Your task to perform on an android device: Clear the cart on ebay. Add "usb-a to usb-b" to the cart on ebay, then select checkout. Image 0: 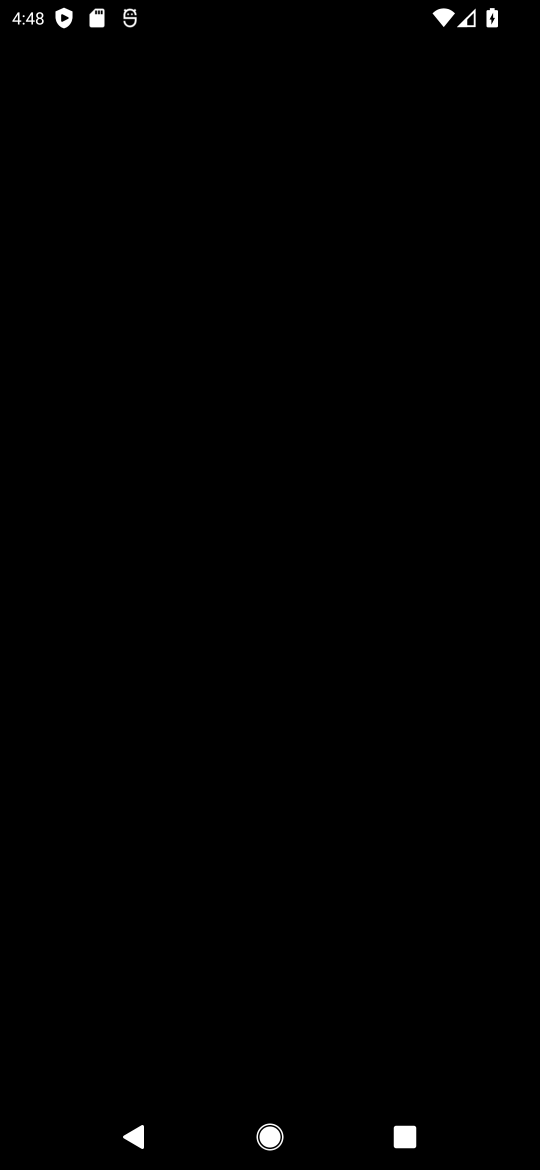
Step 0: click (439, 109)
Your task to perform on an android device: Clear the cart on ebay. Add "usb-a to usb-b" to the cart on ebay, then select checkout. Image 1: 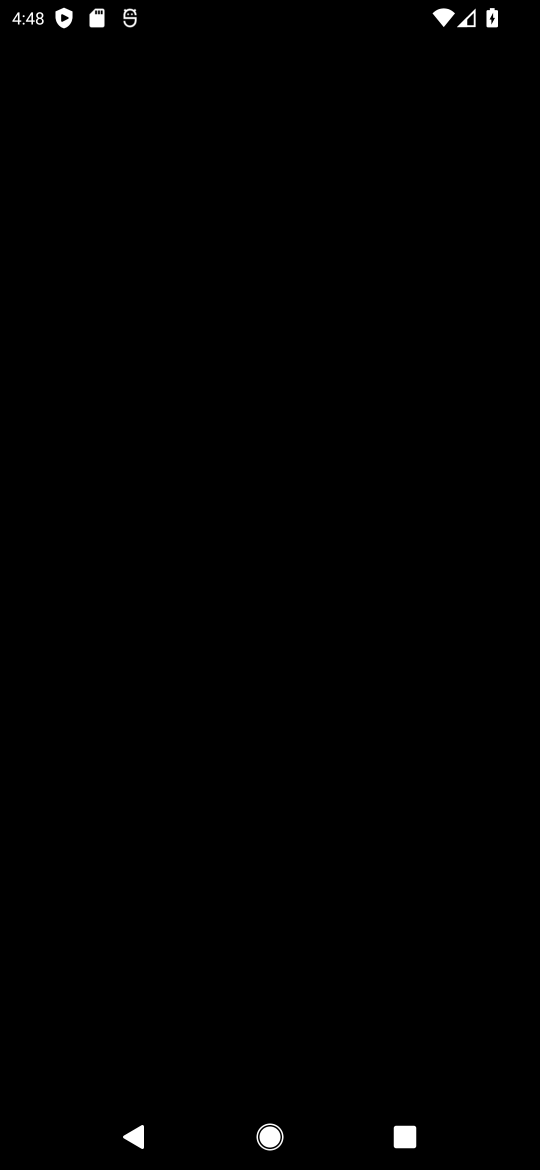
Step 1: press home button
Your task to perform on an android device: Clear the cart on ebay. Add "usb-a to usb-b" to the cart on ebay, then select checkout. Image 2: 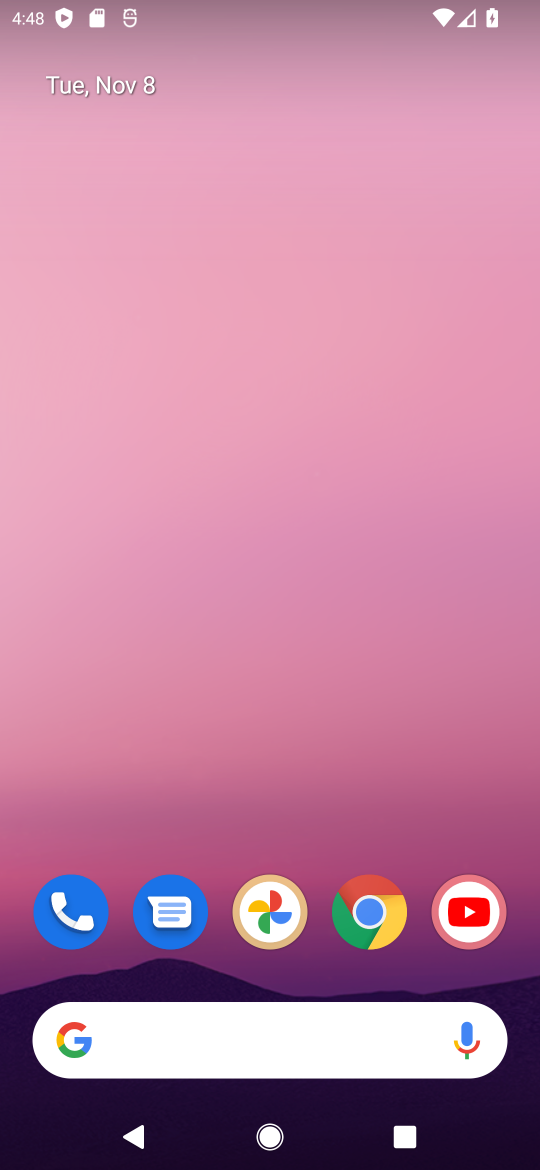
Step 2: click (372, 906)
Your task to perform on an android device: Clear the cart on ebay. Add "usb-a to usb-b" to the cart on ebay, then select checkout. Image 3: 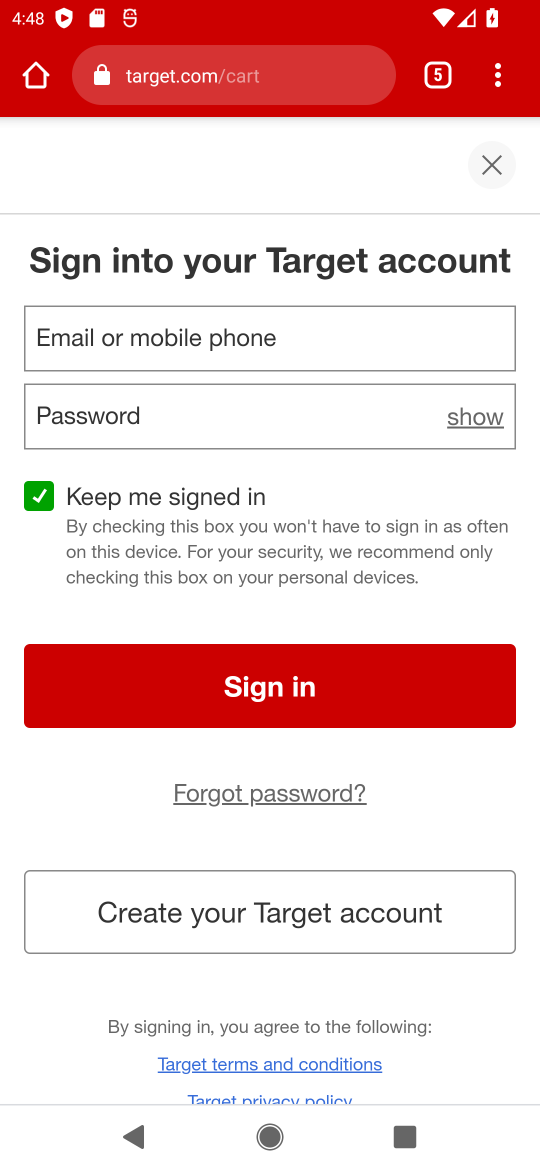
Step 3: click (441, 77)
Your task to perform on an android device: Clear the cart on ebay. Add "usb-a to usb-b" to the cart on ebay, then select checkout. Image 4: 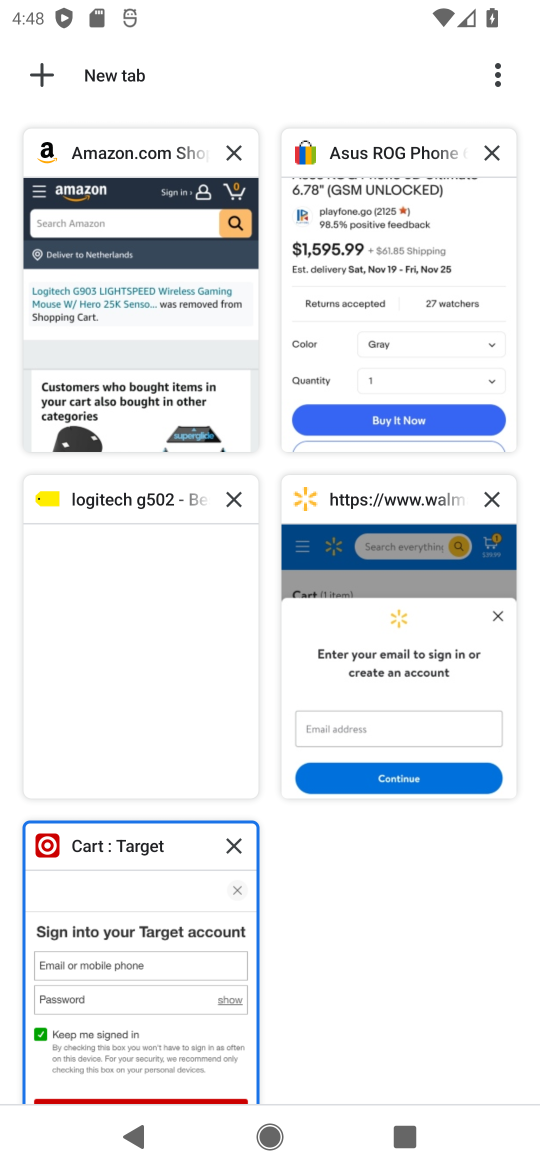
Step 4: click (193, 605)
Your task to perform on an android device: Clear the cart on ebay. Add "usb-a to usb-b" to the cart on ebay, then select checkout. Image 5: 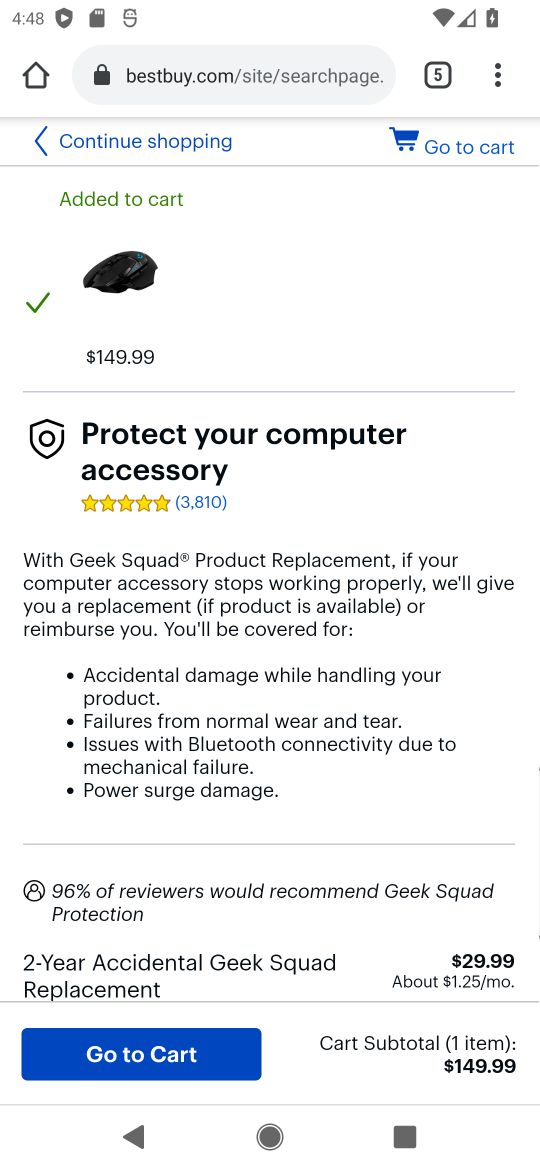
Step 5: click (204, 143)
Your task to perform on an android device: Clear the cart on ebay. Add "usb-a to usb-b" to the cart on ebay, then select checkout. Image 6: 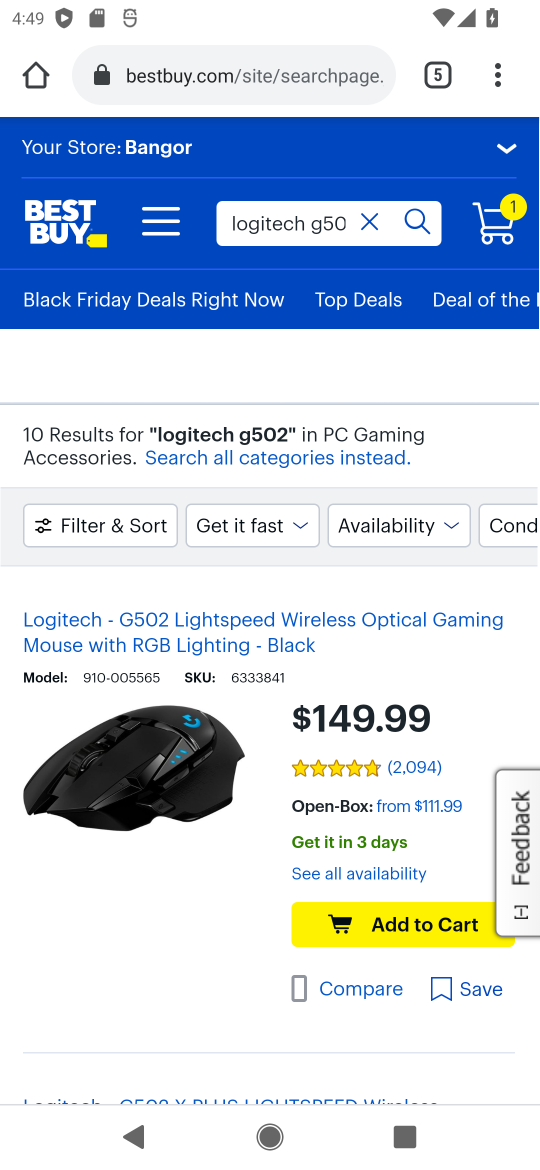
Step 6: click (380, 215)
Your task to perform on an android device: Clear the cart on ebay. Add "usb-a to usb-b" to the cart on ebay, then select checkout. Image 7: 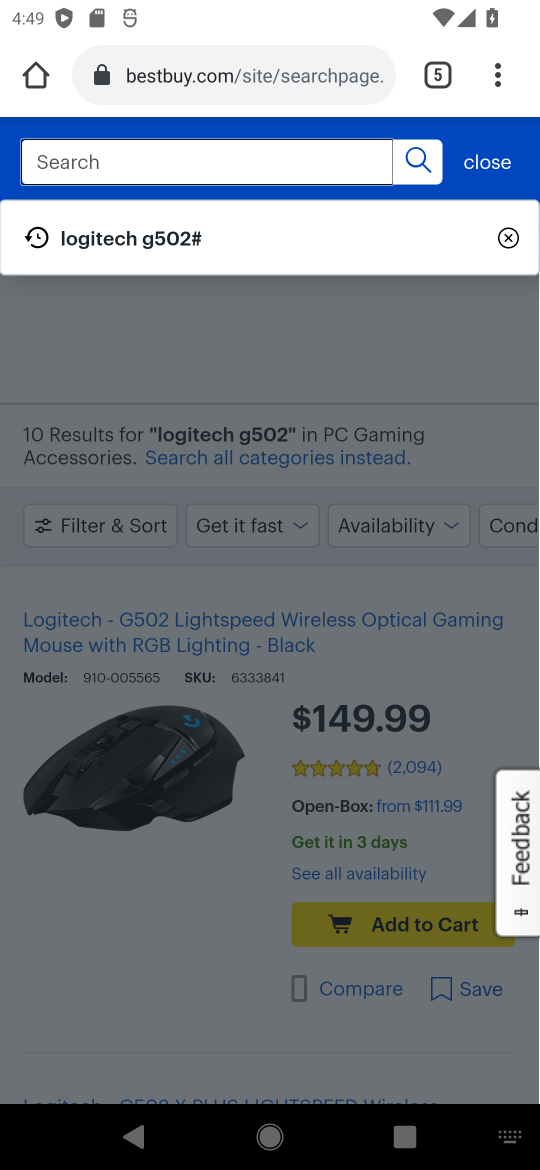
Step 7: press enter
Your task to perform on an android device: Clear the cart on ebay. Add "usb-a to usb-b" to the cart on ebay, then select checkout. Image 8: 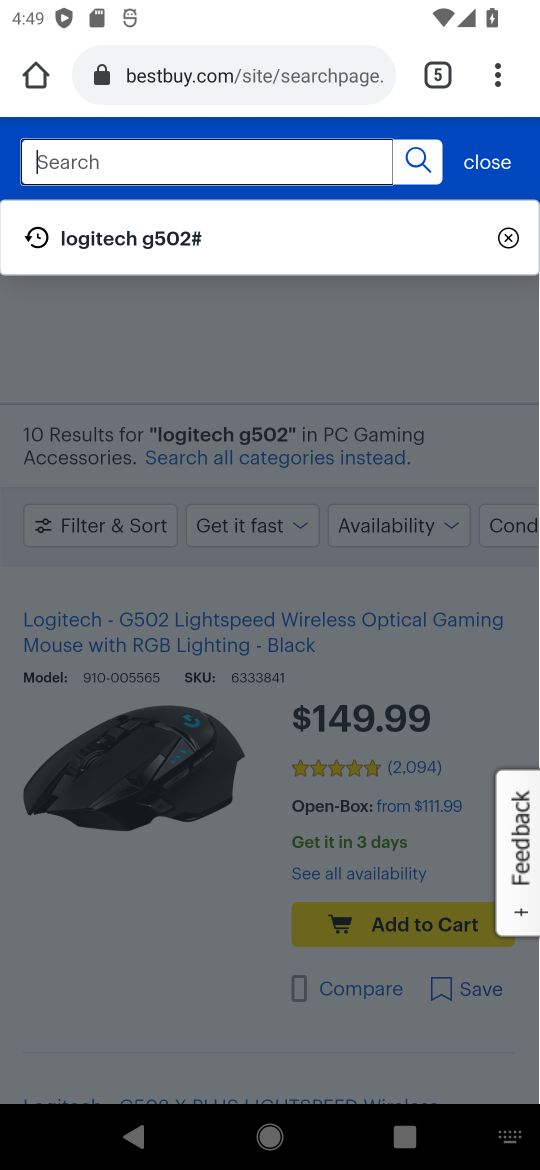
Step 8: type "usb-a to usb-b"
Your task to perform on an android device: Clear the cart on ebay. Add "usb-a to usb-b" to the cart on ebay, then select checkout. Image 9: 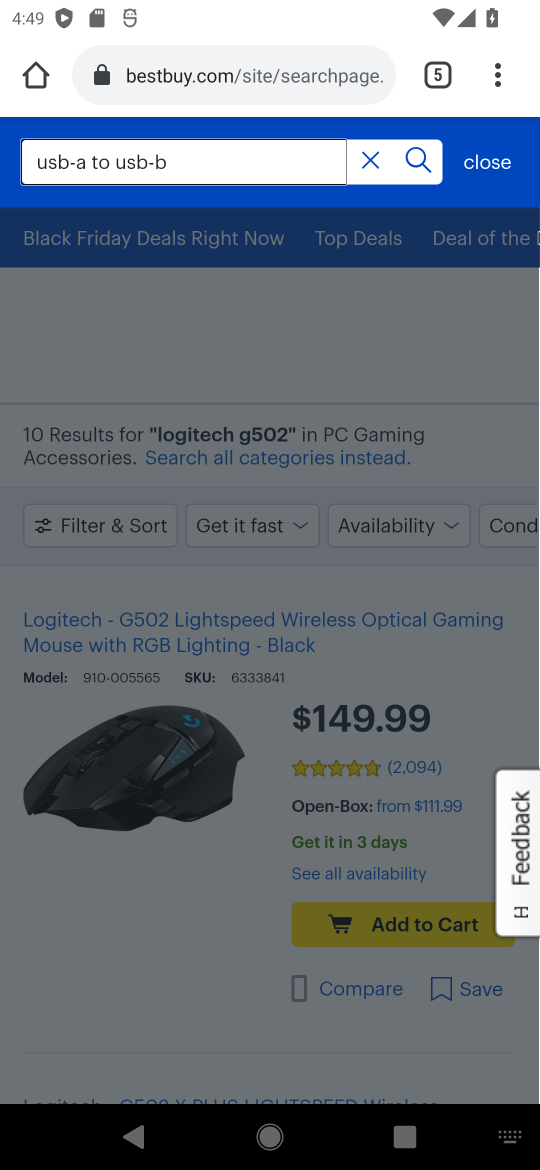
Step 9: click (419, 154)
Your task to perform on an android device: Clear the cart on ebay. Add "usb-a to usb-b" to the cart on ebay, then select checkout. Image 10: 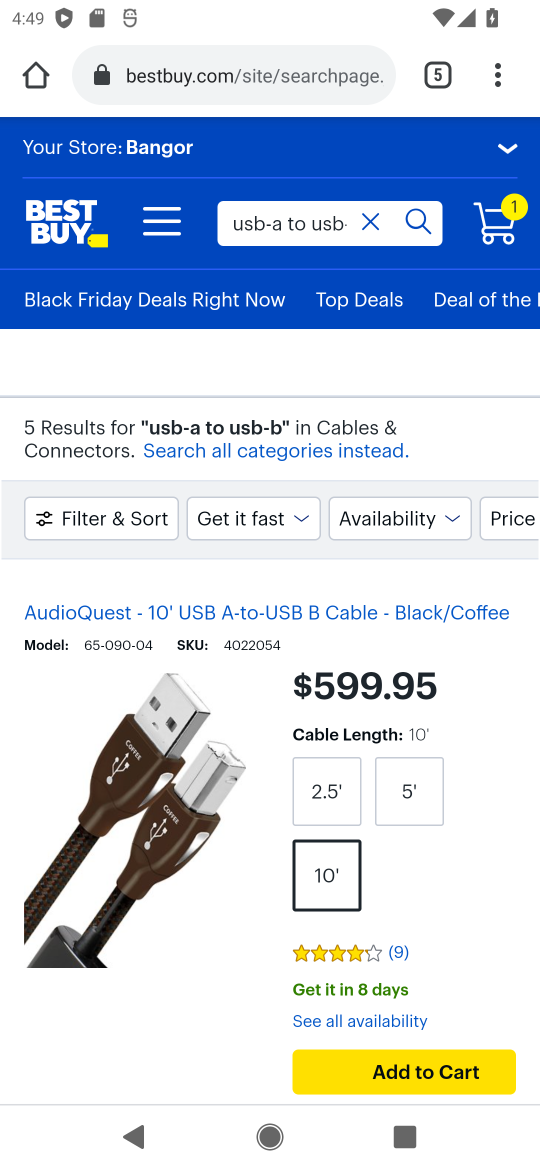
Step 10: click (442, 1064)
Your task to perform on an android device: Clear the cart on ebay. Add "usb-a to usb-b" to the cart on ebay, then select checkout. Image 11: 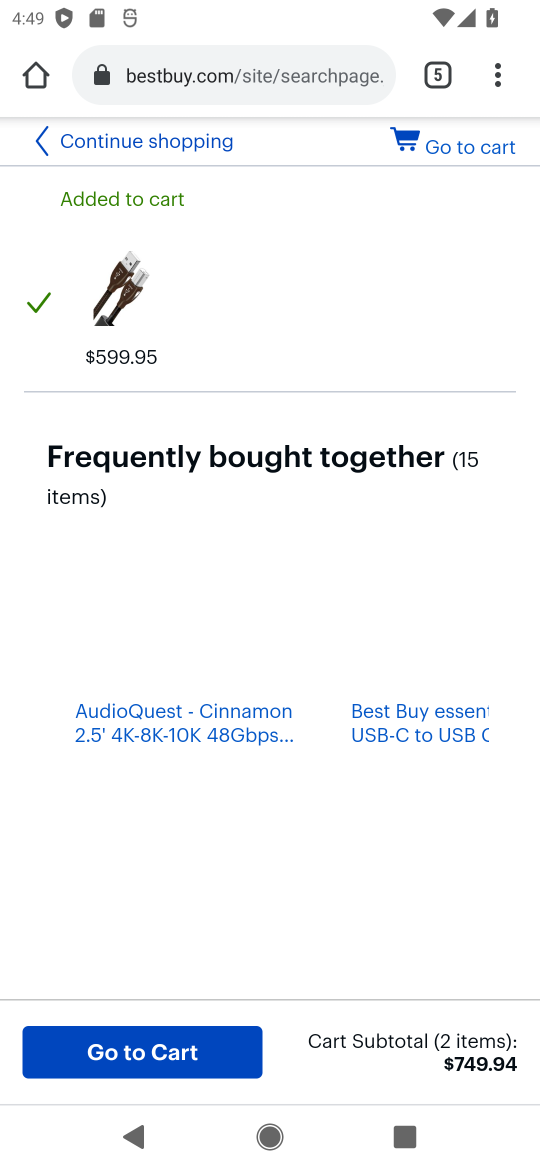
Step 11: click (125, 1057)
Your task to perform on an android device: Clear the cart on ebay. Add "usb-a to usb-b" to the cart on ebay, then select checkout. Image 12: 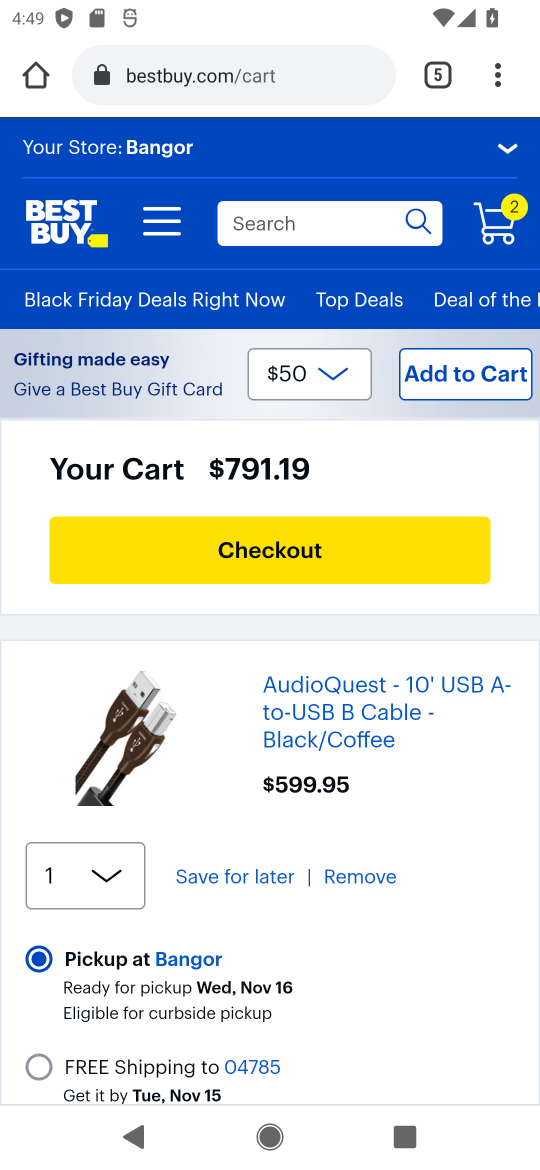
Step 12: click (262, 540)
Your task to perform on an android device: Clear the cart on ebay. Add "usb-a to usb-b" to the cart on ebay, then select checkout. Image 13: 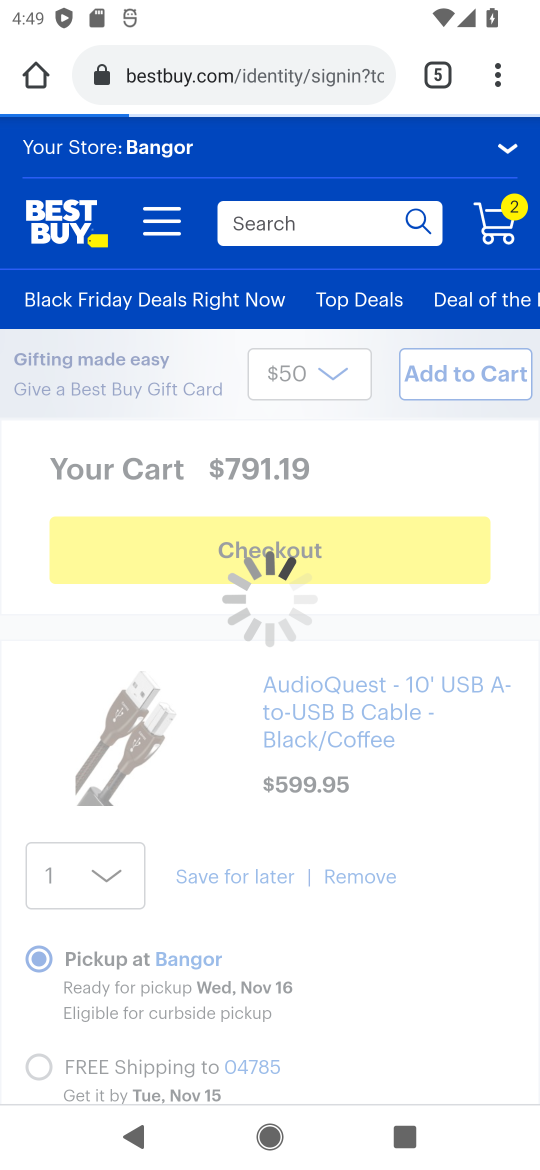
Step 13: task complete